Your task to perform on an android device: open chrome privacy settings Image 0: 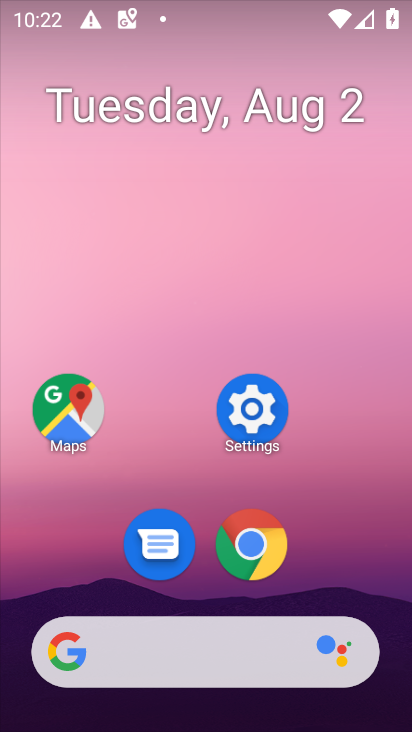
Step 0: press home button
Your task to perform on an android device: open chrome privacy settings Image 1: 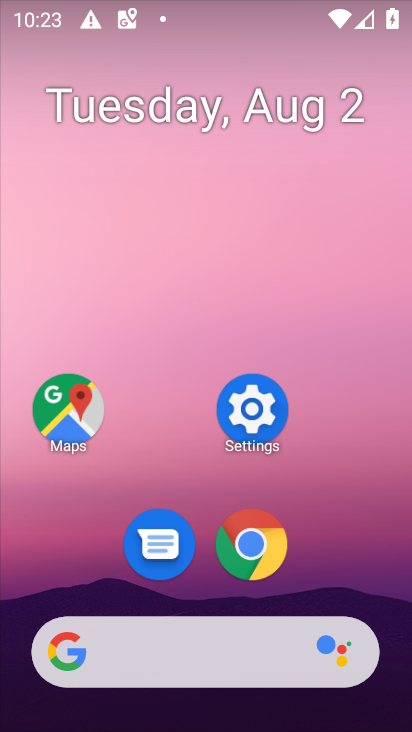
Step 1: click (247, 555)
Your task to perform on an android device: open chrome privacy settings Image 2: 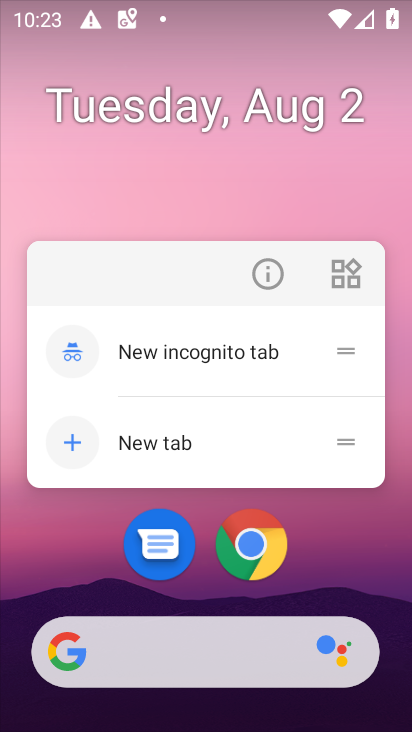
Step 2: click (257, 544)
Your task to perform on an android device: open chrome privacy settings Image 3: 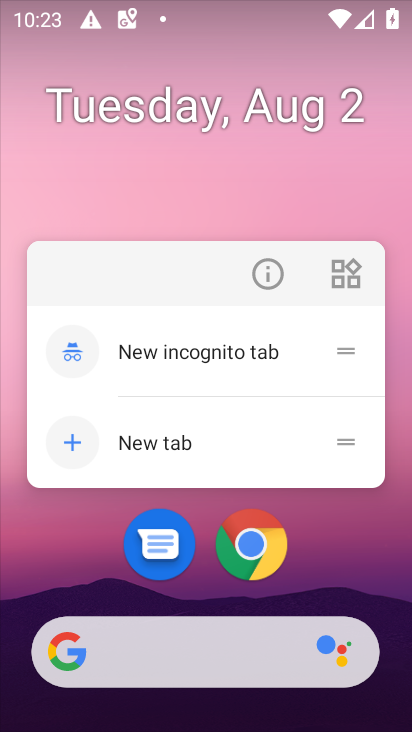
Step 3: click (257, 544)
Your task to perform on an android device: open chrome privacy settings Image 4: 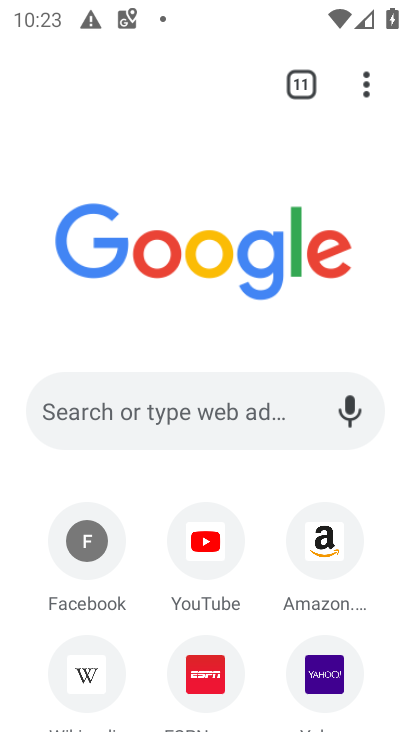
Step 4: drag from (363, 86) to (203, 595)
Your task to perform on an android device: open chrome privacy settings Image 5: 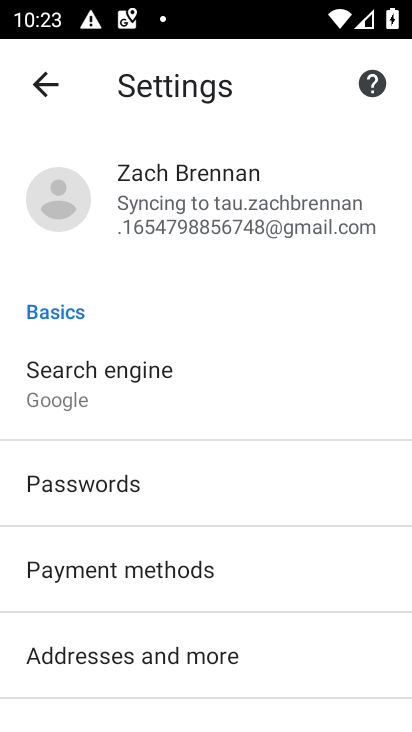
Step 5: drag from (251, 558) to (343, 272)
Your task to perform on an android device: open chrome privacy settings Image 6: 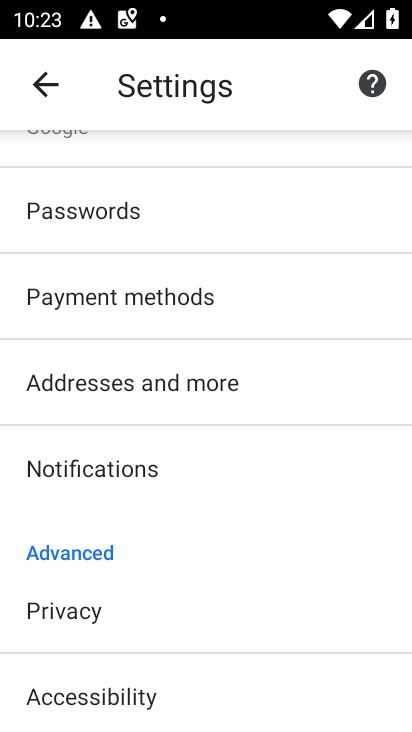
Step 6: click (103, 599)
Your task to perform on an android device: open chrome privacy settings Image 7: 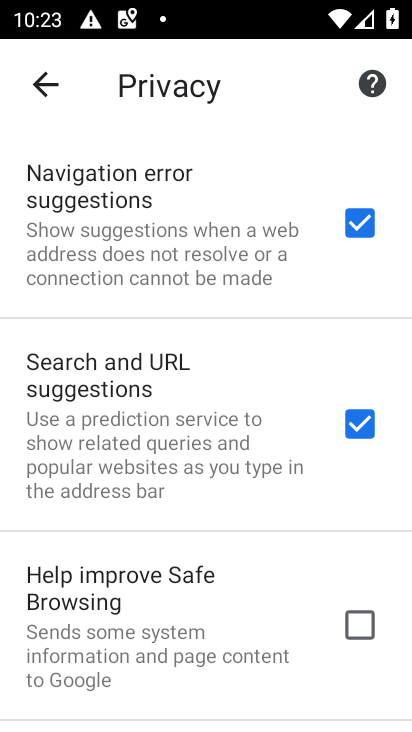
Step 7: task complete